Your task to perform on an android device: find photos in the google photos app Image 0: 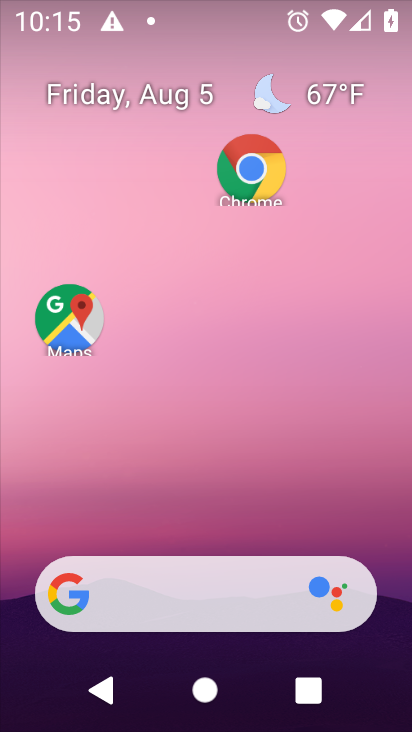
Step 0: press home button
Your task to perform on an android device: find photos in the google photos app Image 1: 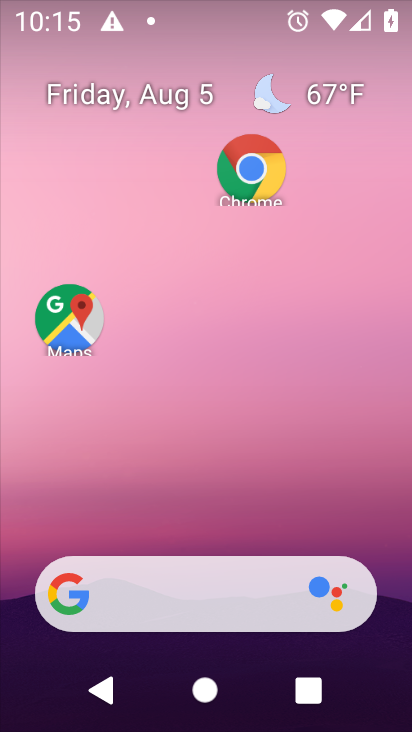
Step 1: drag from (197, 501) to (150, 142)
Your task to perform on an android device: find photos in the google photos app Image 2: 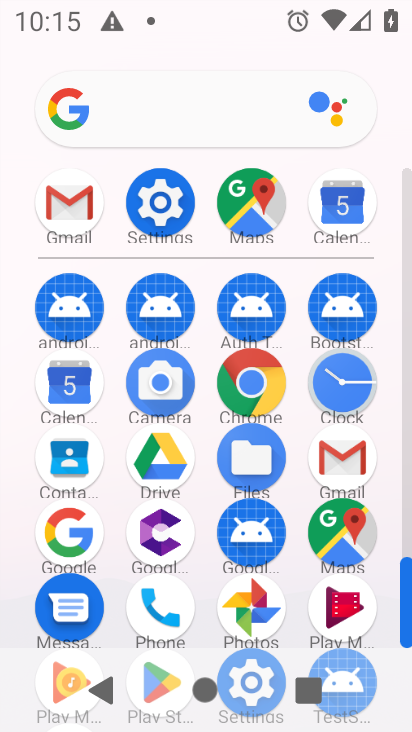
Step 2: click (241, 597)
Your task to perform on an android device: find photos in the google photos app Image 3: 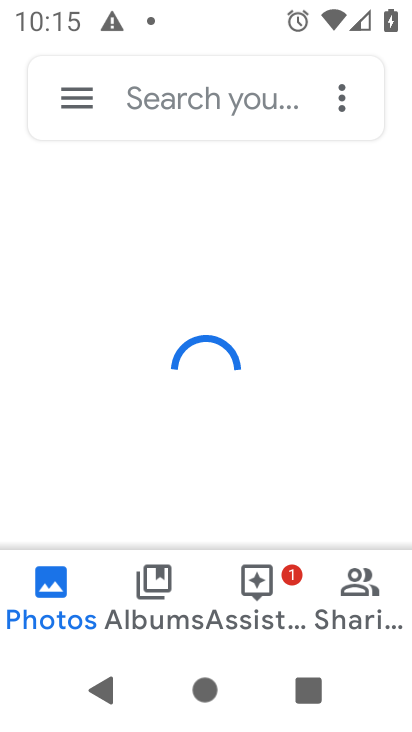
Step 3: click (211, 97)
Your task to perform on an android device: find photos in the google photos app Image 4: 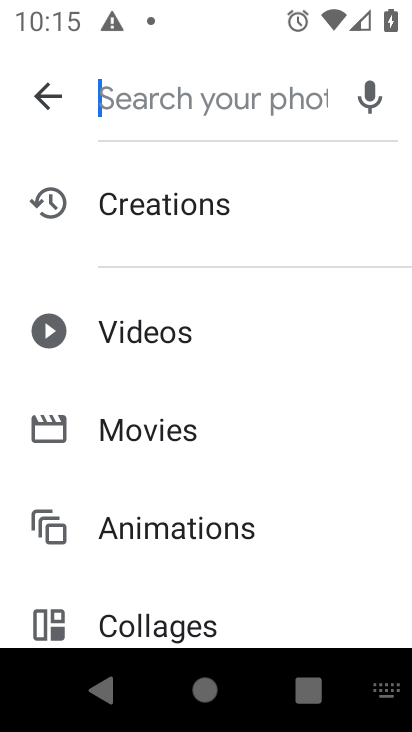
Step 4: type "aa"
Your task to perform on an android device: find photos in the google photos app Image 5: 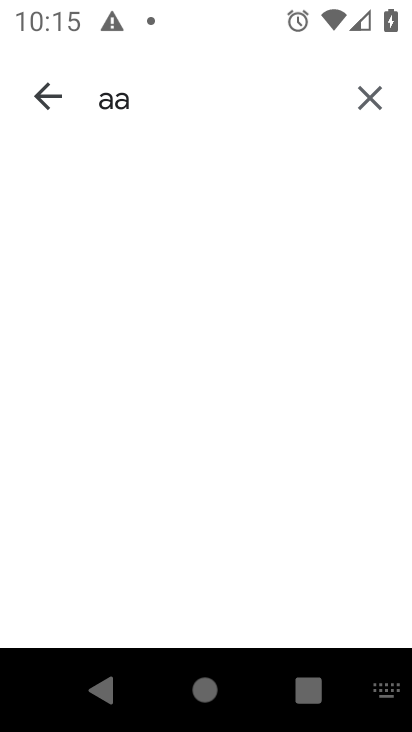
Step 5: task complete